Your task to perform on an android device: open wifi settings Image 0: 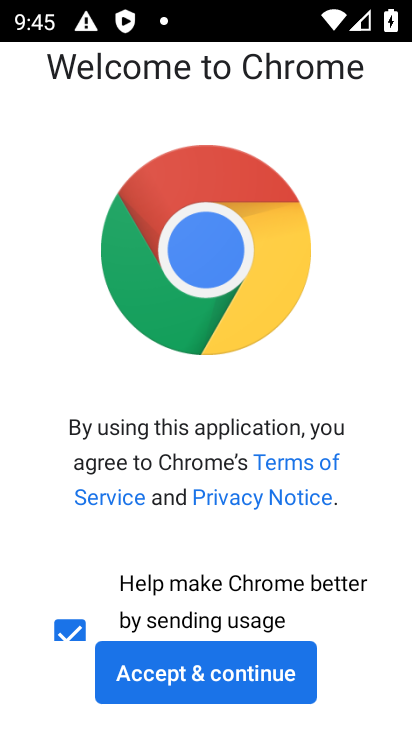
Step 0: press home button
Your task to perform on an android device: open wifi settings Image 1: 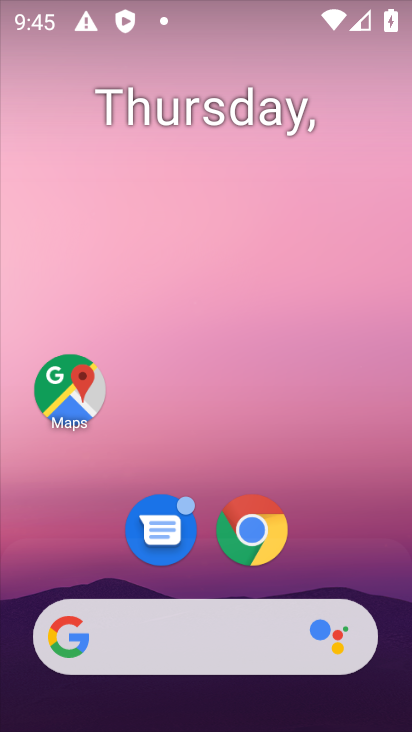
Step 1: drag from (369, 574) to (297, 99)
Your task to perform on an android device: open wifi settings Image 2: 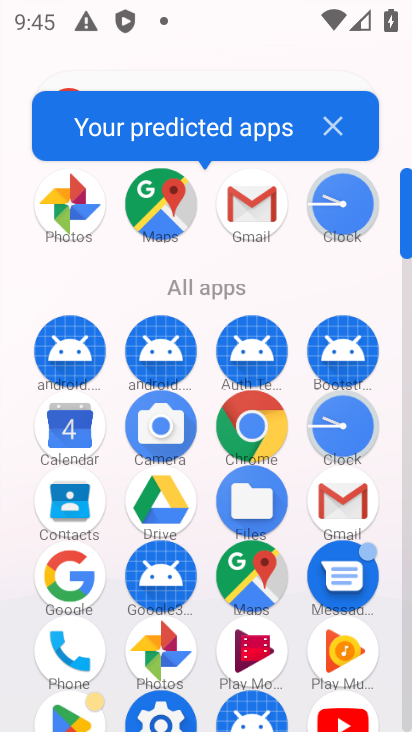
Step 2: click (170, 707)
Your task to perform on an android device: open wifi settings Image 3: 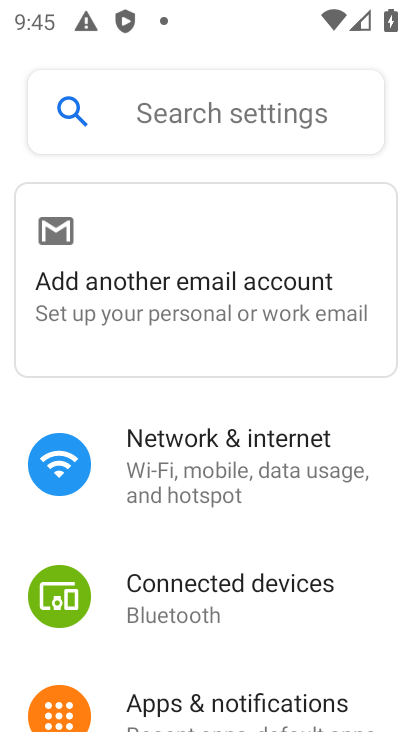
Step 3: click (185, 441)
Your task to perform on an android device: open wifi settings Image 4: 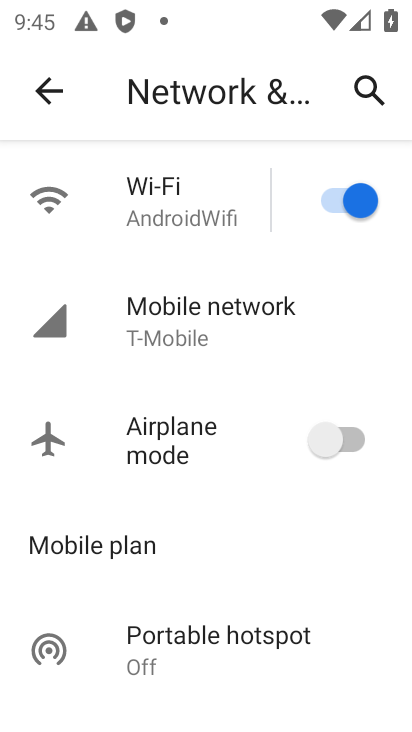
Step 4: task complete